Your task to perform on an android device: Open the calendar app, open the side menu, and click the "Day" option Image 0: 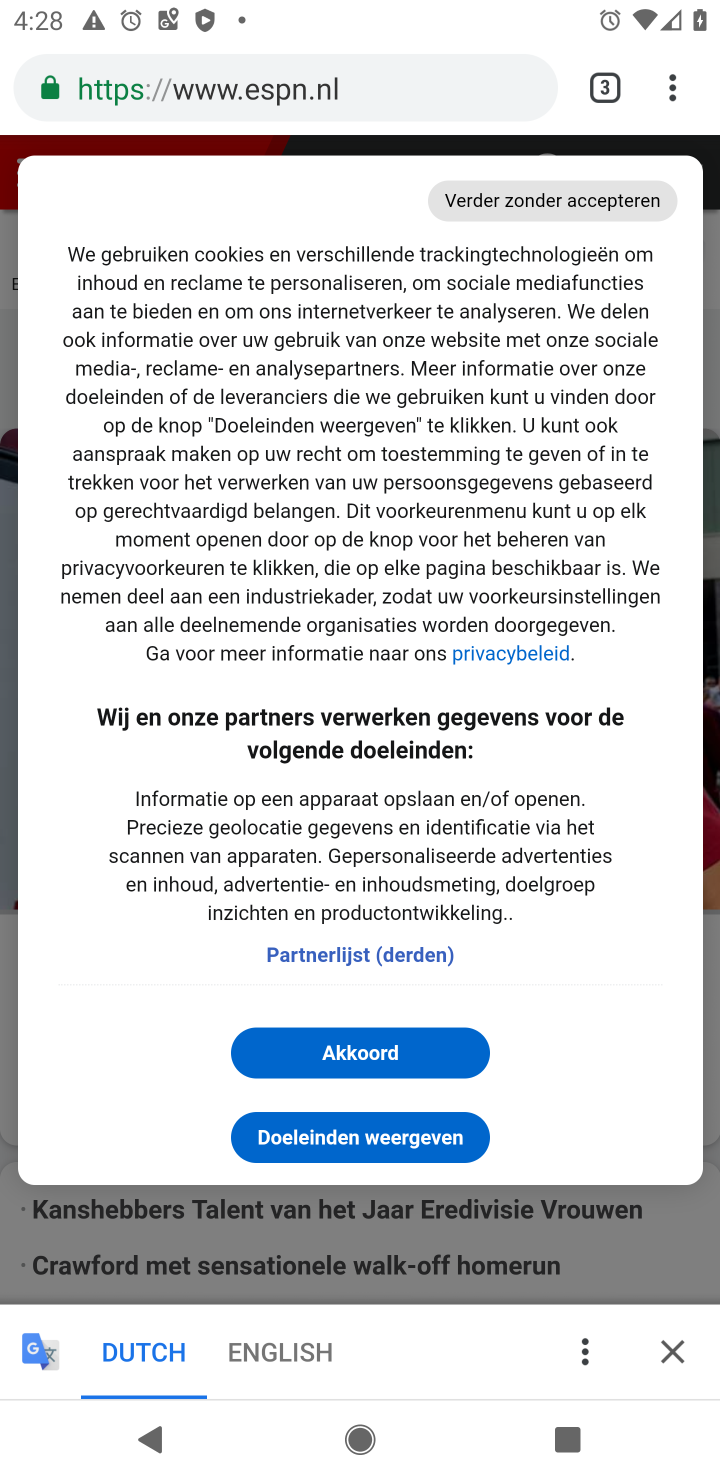
Step 0: press home button
Your task to perform on an android device: Open the calendar app, open the side menu, and click the "Day" option Image 1: 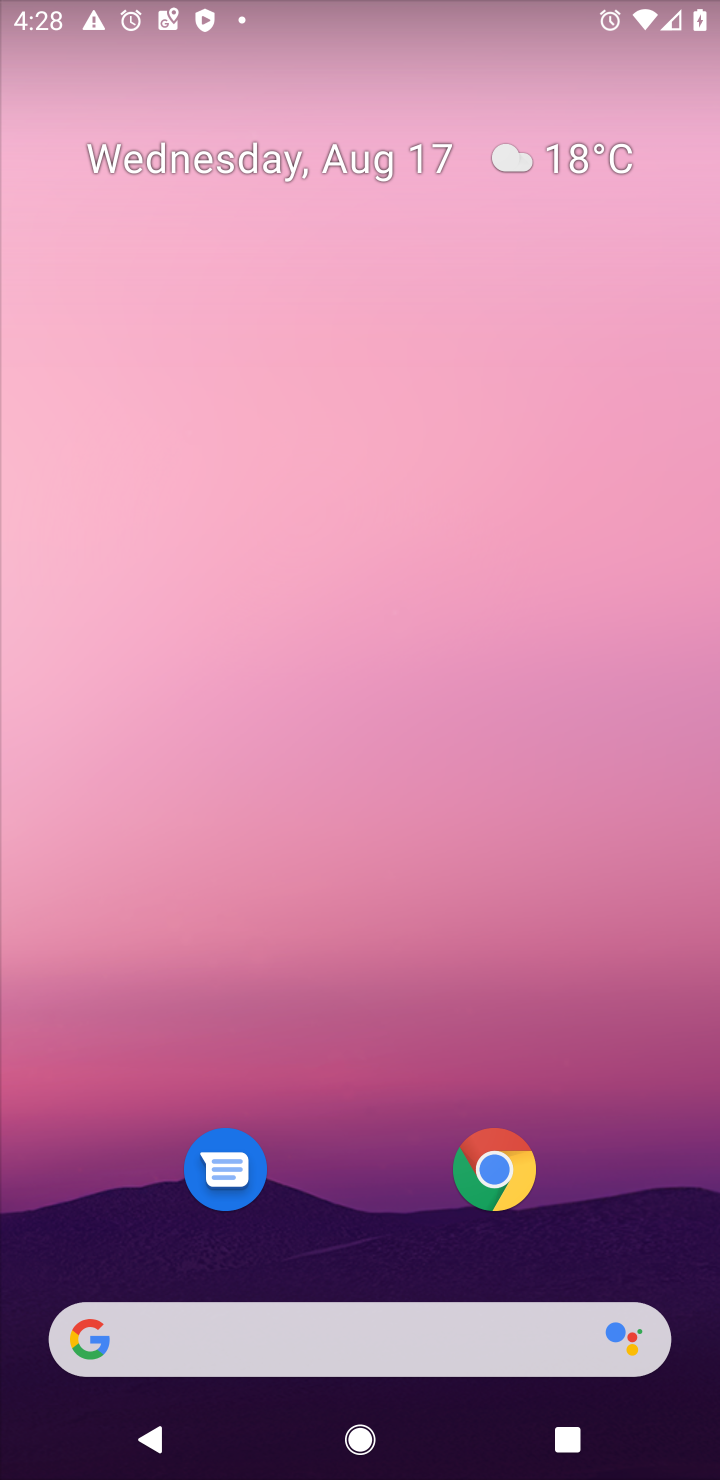
Step 1: drag from (418, 1215) to (330, 188)
Your task to perform on an android device: Open the calendar app, open the side menu, and click the "Day" option Image 2: 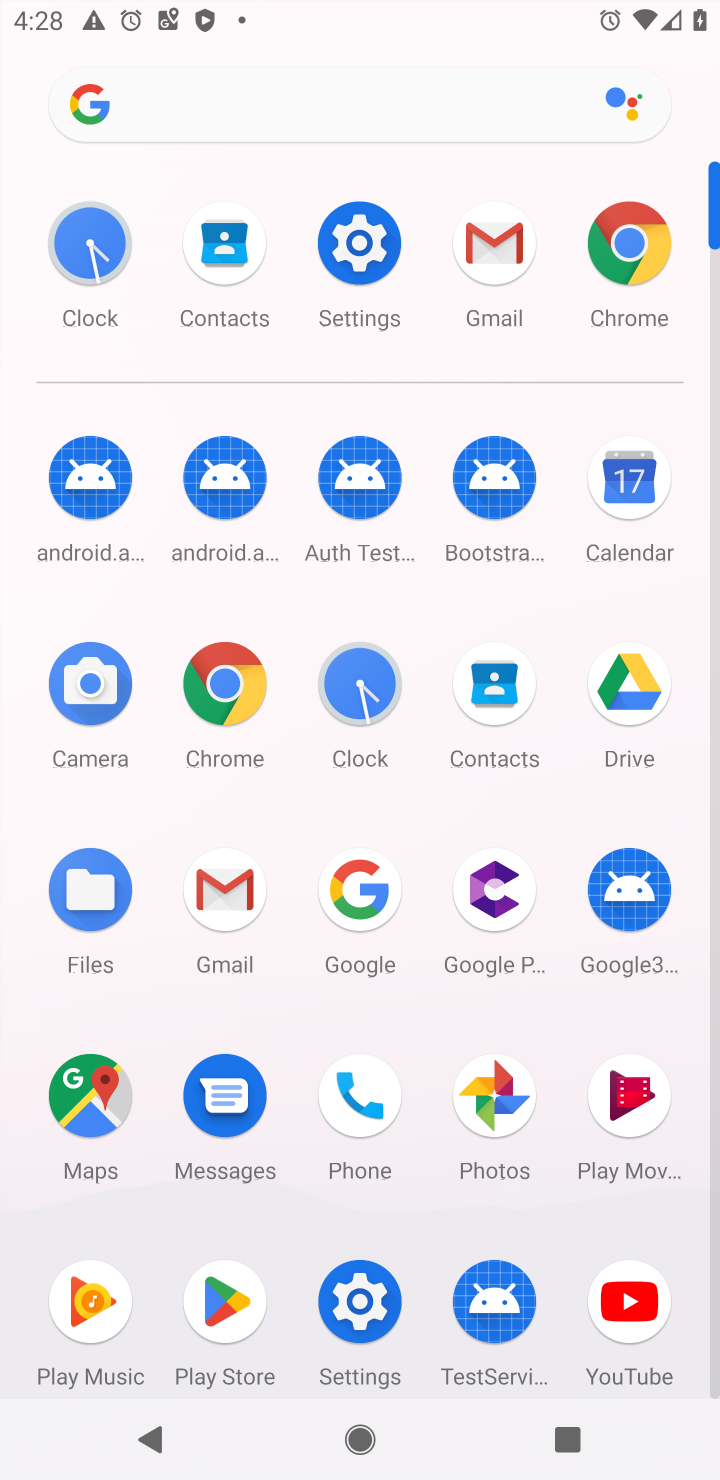
Step 2: click (613, 475)
Your task to perform on an android device: Open the calendar app, open the side menu, and click the "Day" option Image 3: 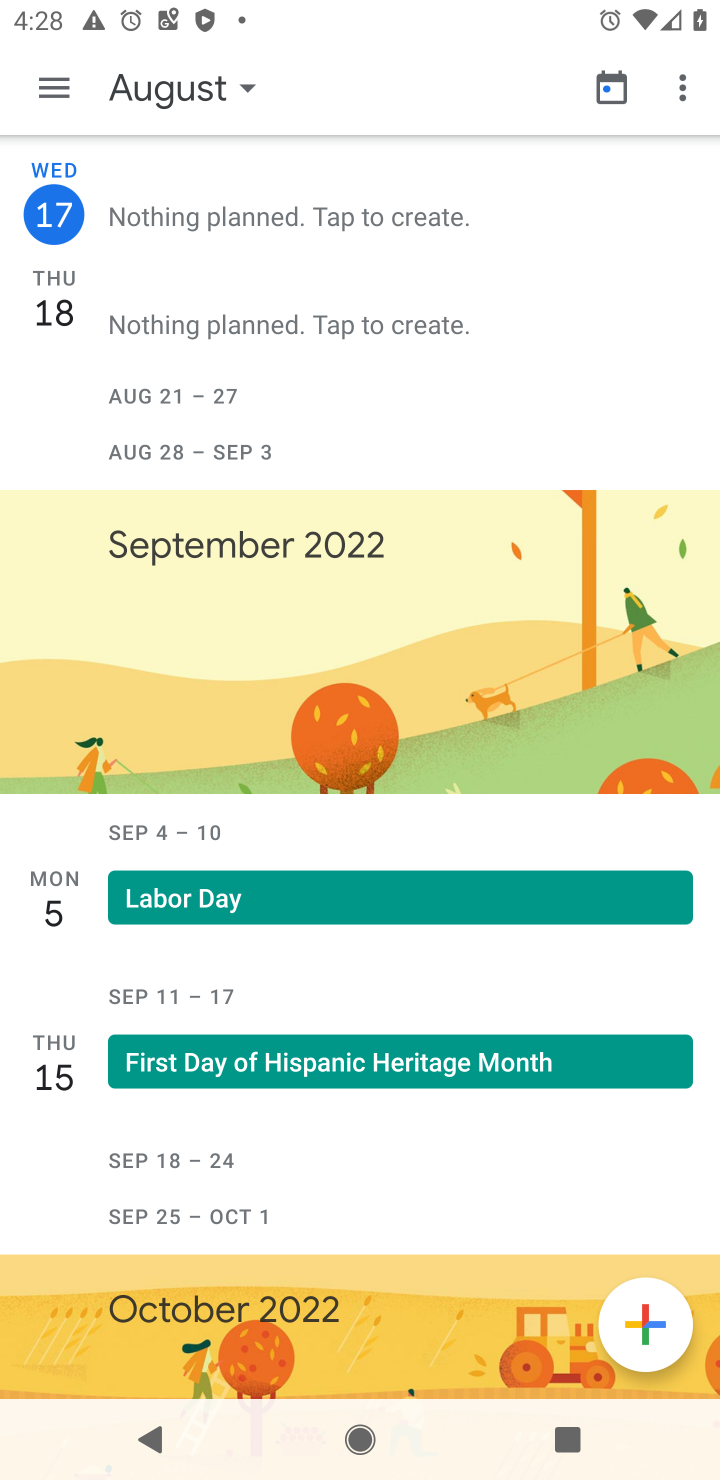
Step 3: click (50, 81)
Your task to perform on an android device: Open the calendar app, open the side menu, and click the "Day" option Image 4: 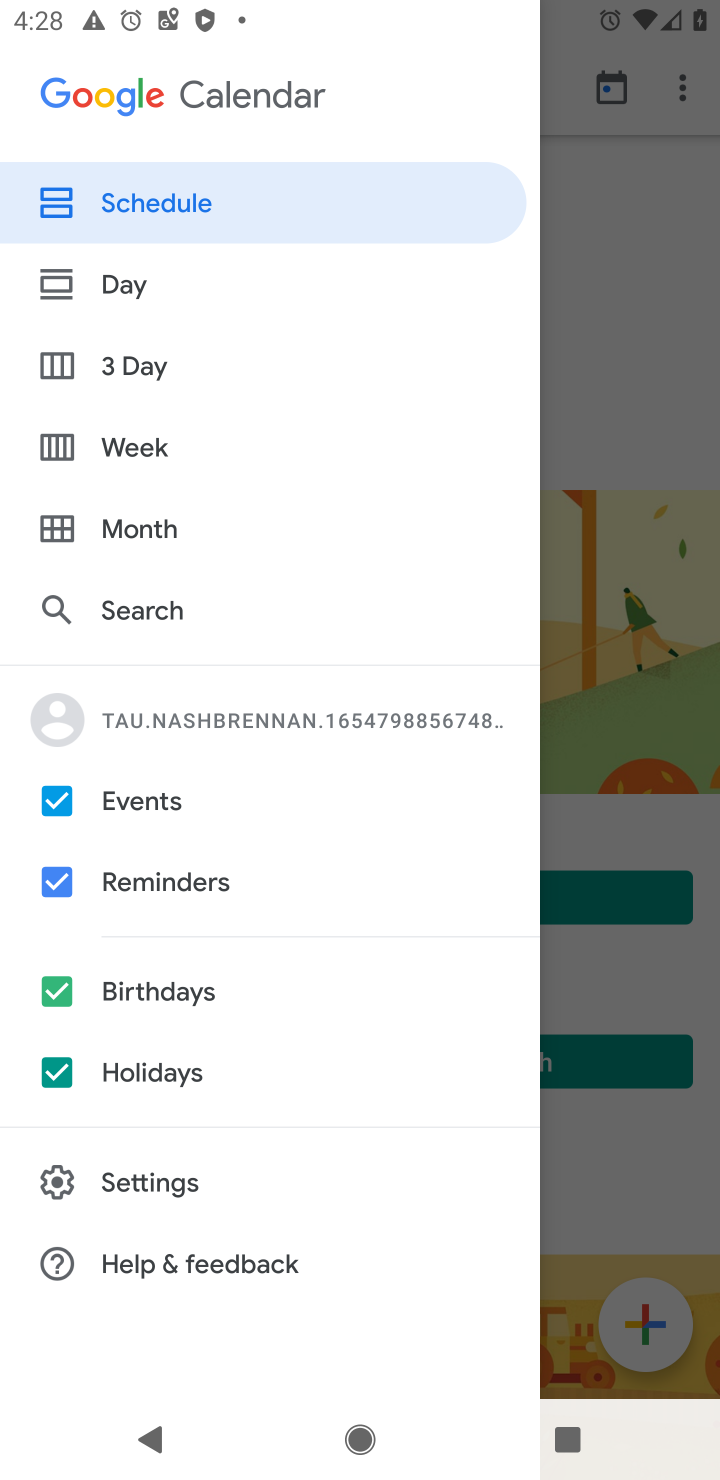
Step 4: click (114, 282)
Your task to perform on an android device: Open the calendar app, open the side menu, and click the "Day" option Image 5: 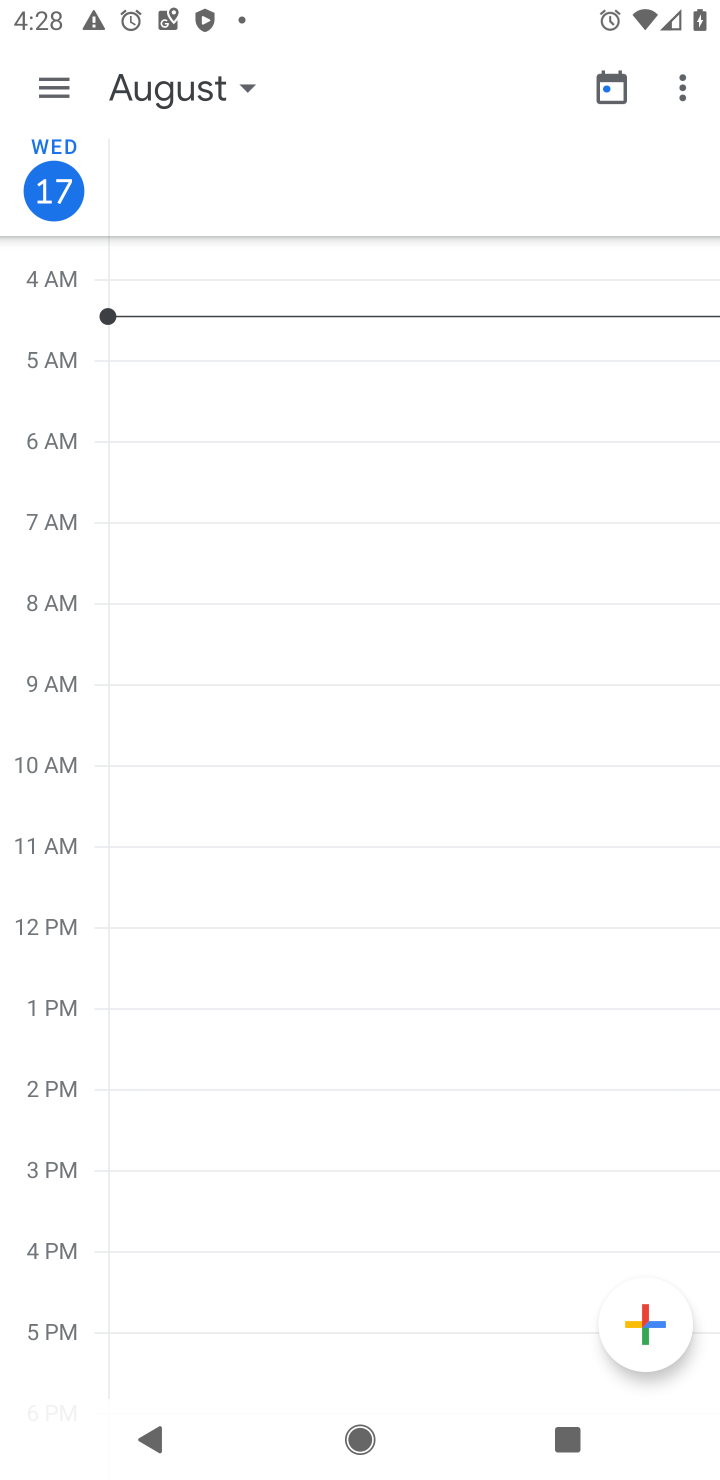
Step 5: task complete